Your task to perform on an android device: delete location history Image 0: 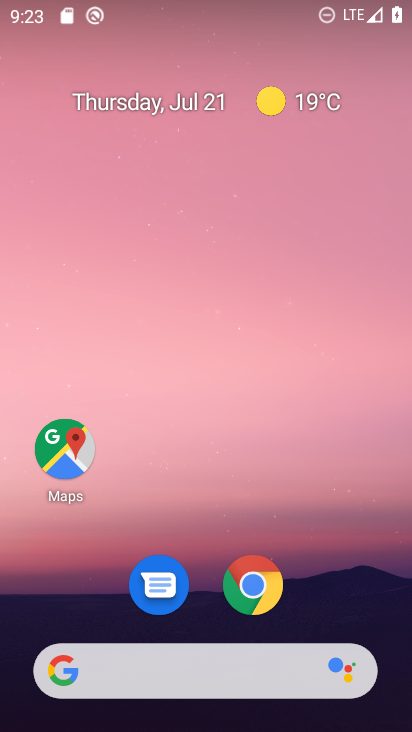
Step 0: drag from (312, 539) to (342, 10)
Your task to perform on an android device: delete location history Image 1: 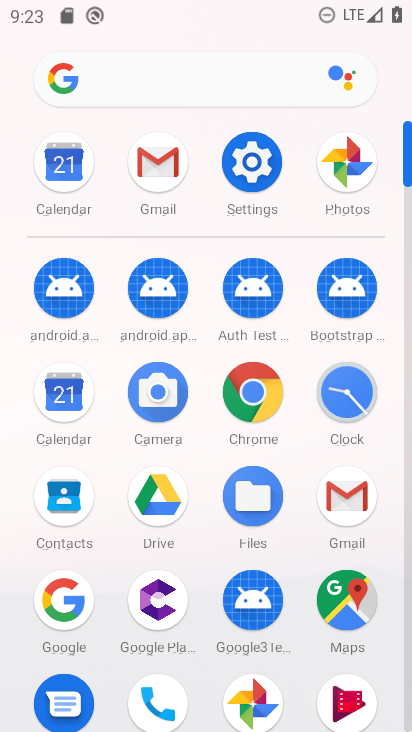
Step 1: click (347, 601)
Your task to perform on an android device: delete location history Image 2: 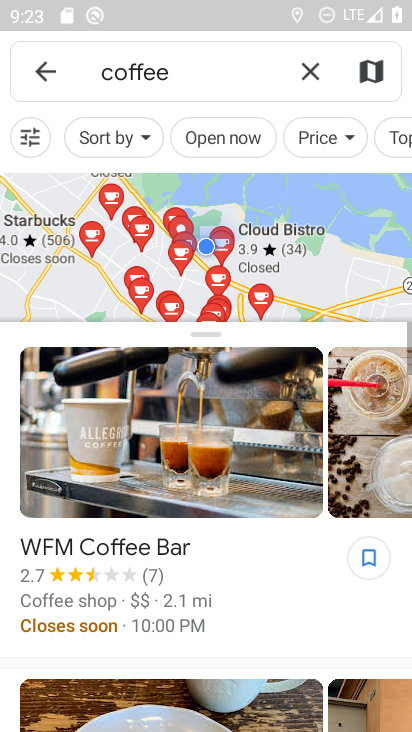
Step 2: click (49, 67)
Your task to perform on an android device: delete location history Image 3: 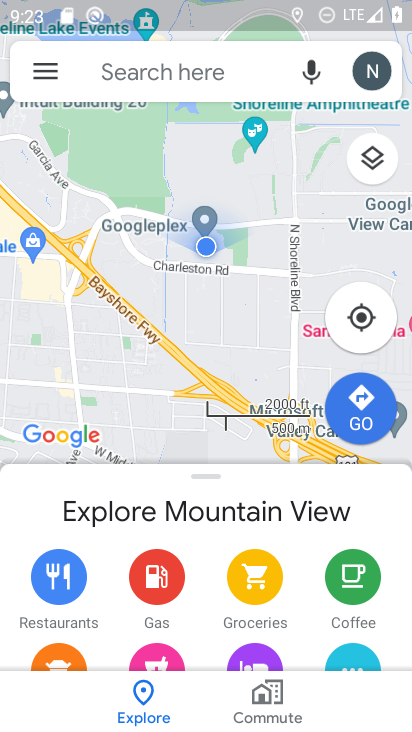
Step 3: click (49, 67)
Your task to perform on an android device: delete location history Image 4: 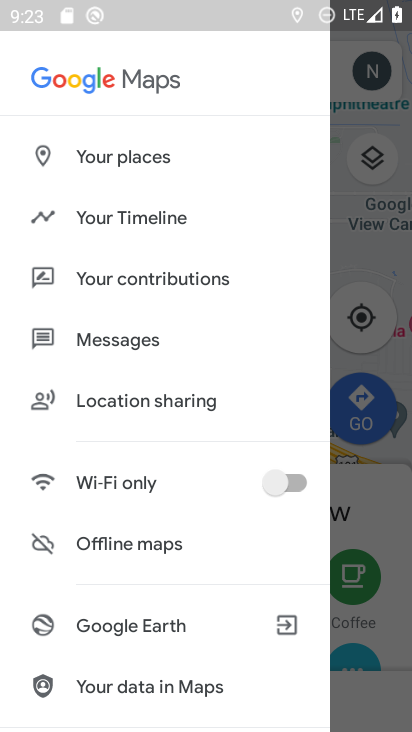
Step 4: click (125, 213)
Your task to perform on an android device: delete location history Image 5: 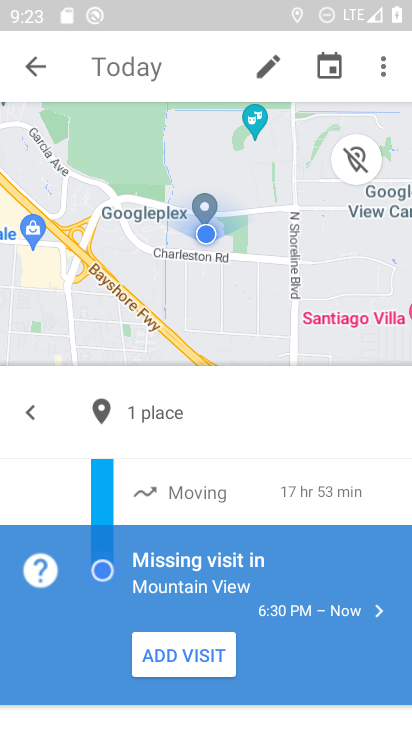
Step 5: click (381, 67)
Your task to perform on an android device: delete location history Image 6: 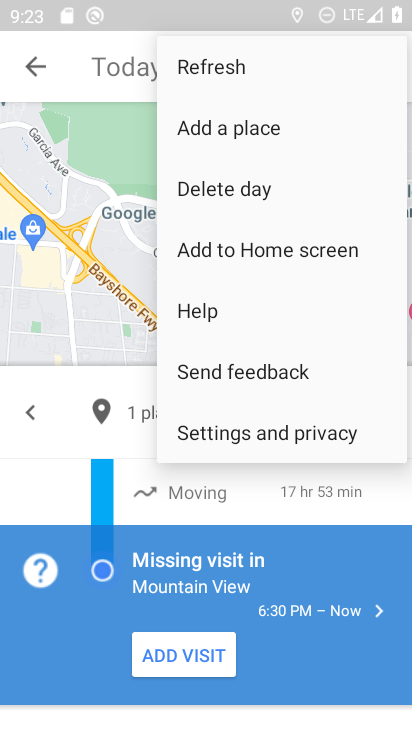
Step 6: click (341, 424)
Your task to perform on an android device: delete location history Image 7: 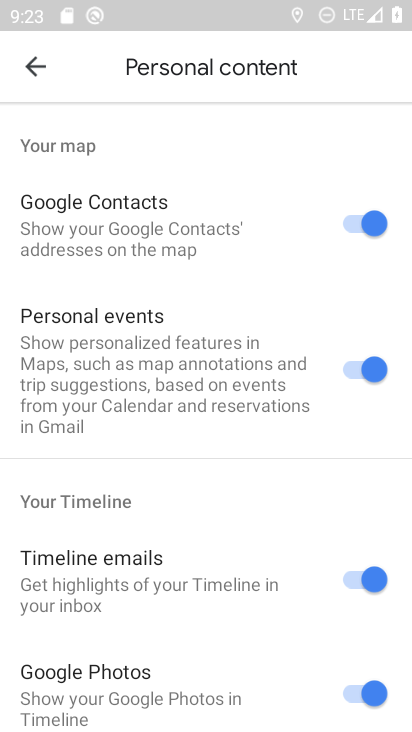
Step 7: drag from (230, 623) to (267, 41)
Your task to perform on an android device: delete location history Image 8: 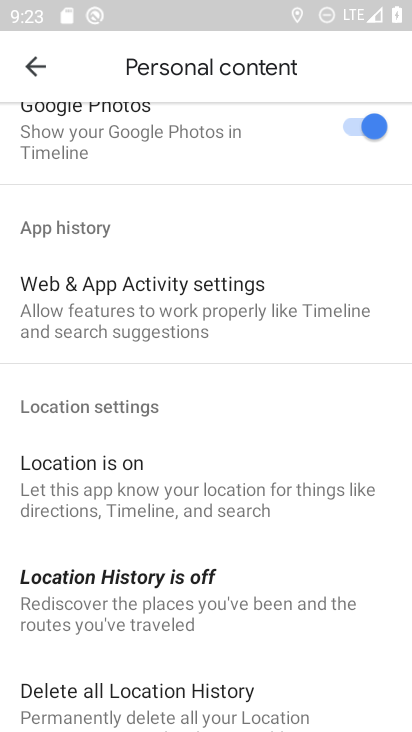
Step 8: drag from (195, 626) to (230, 211)
Your task to perform on an android device: delete location history Image 9: 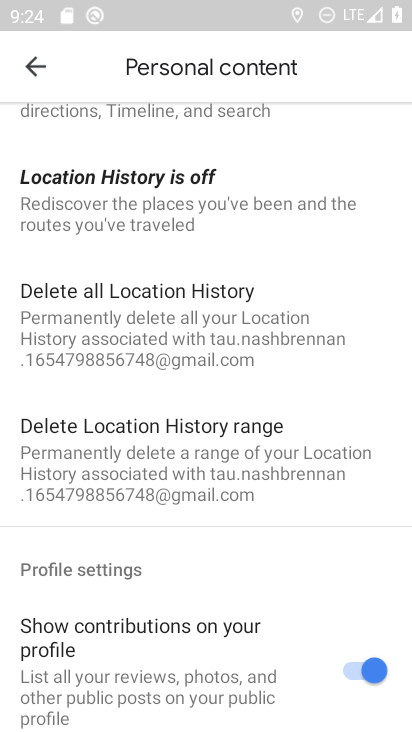
Step 9: click (205, 317)
Your task to perform on an android device: delete location history Image 10: 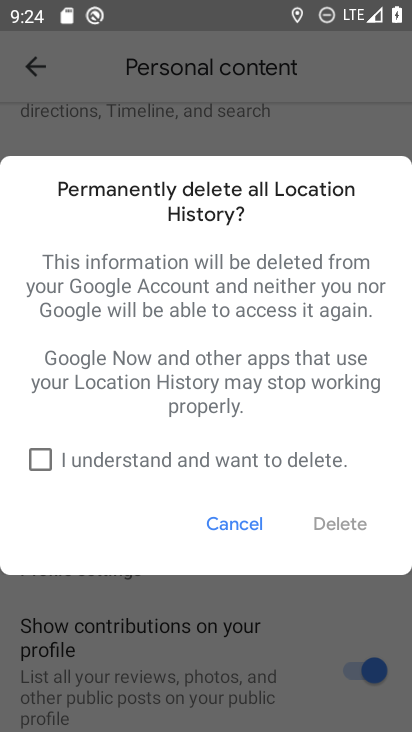
Step 10: click (38, 450)
Your task to perform on an android device: delete location history Image 11: 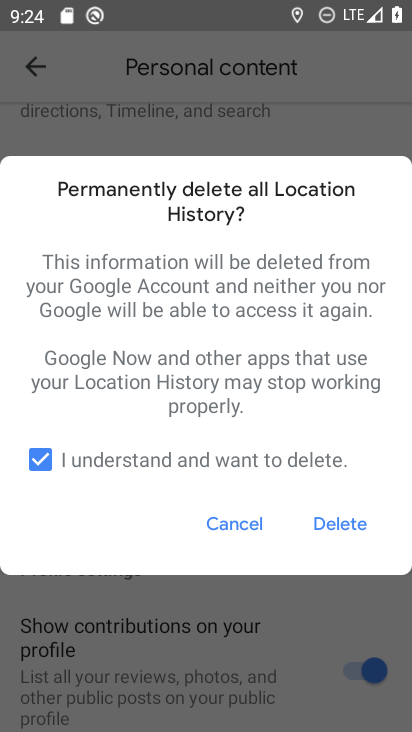
Step 11: click (343, 523)
Your task to perform on an android device: delete location history Image 12: 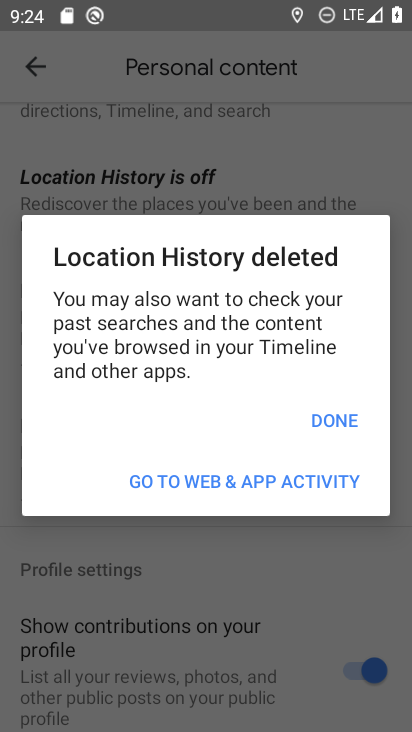
Step 12: click (343, 419)
Your task to perform on an android device: delete location history Image 13: 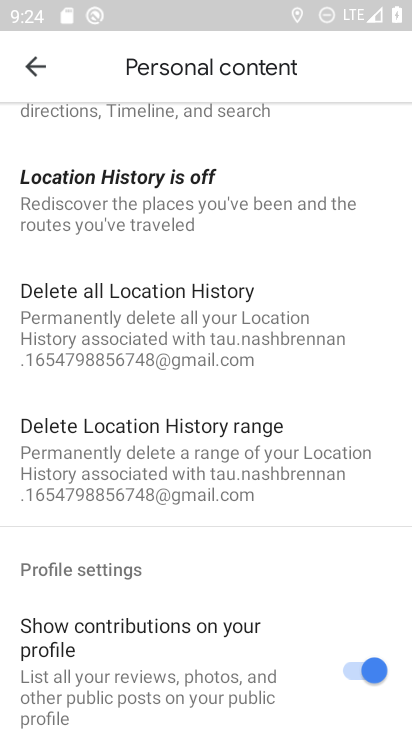
Step 13: task complete